Your task to perform on an android device: What is the recent news? Image 0: 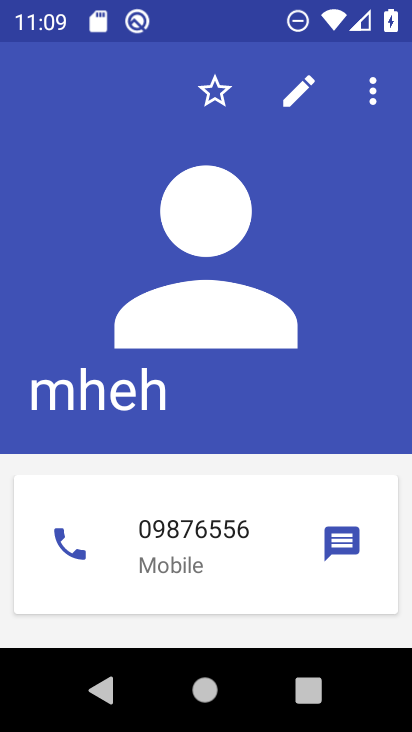
Step 0: press home button
Your task to perform on an android device: What is the recent news? Image 1: 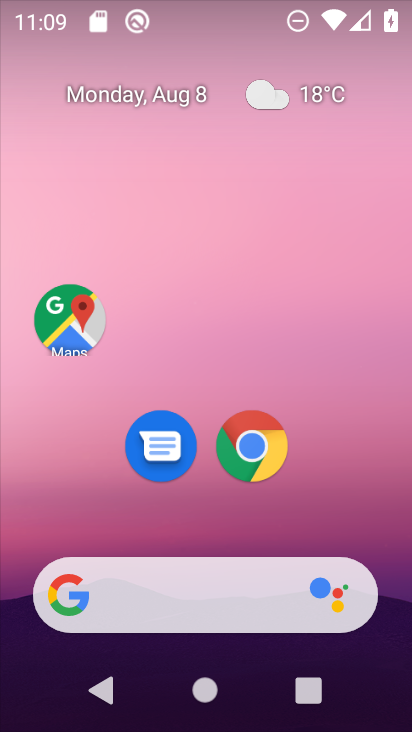
Step 1: task complete